Your task to perform on an android device: toggle sleep mode Image 0: 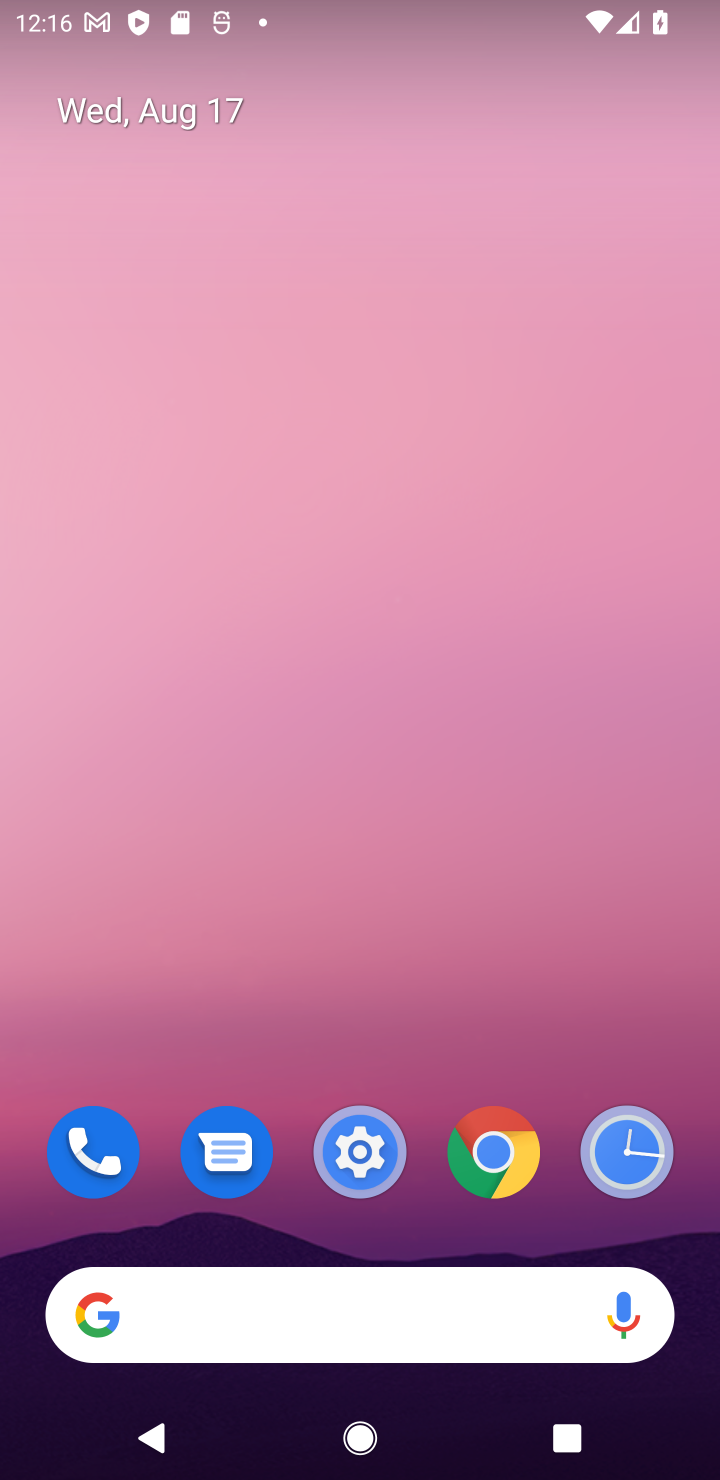
Step 0: drag from (469, 946) to (83, 425)
Your task to perform on an android device: toggle sleep mode Image 1: 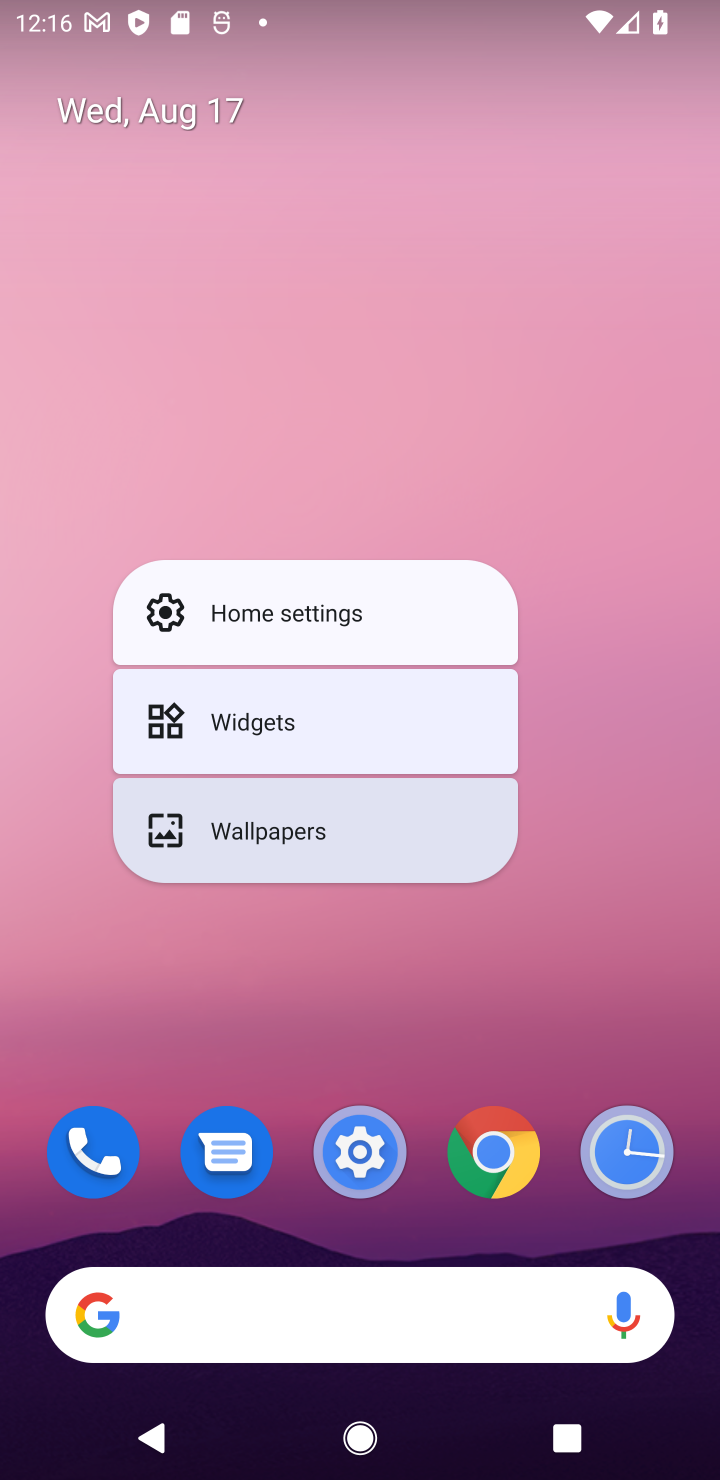
Step 1: click (648, 872)
Your task to perform on an android device: toggle sleep mode Image 2: 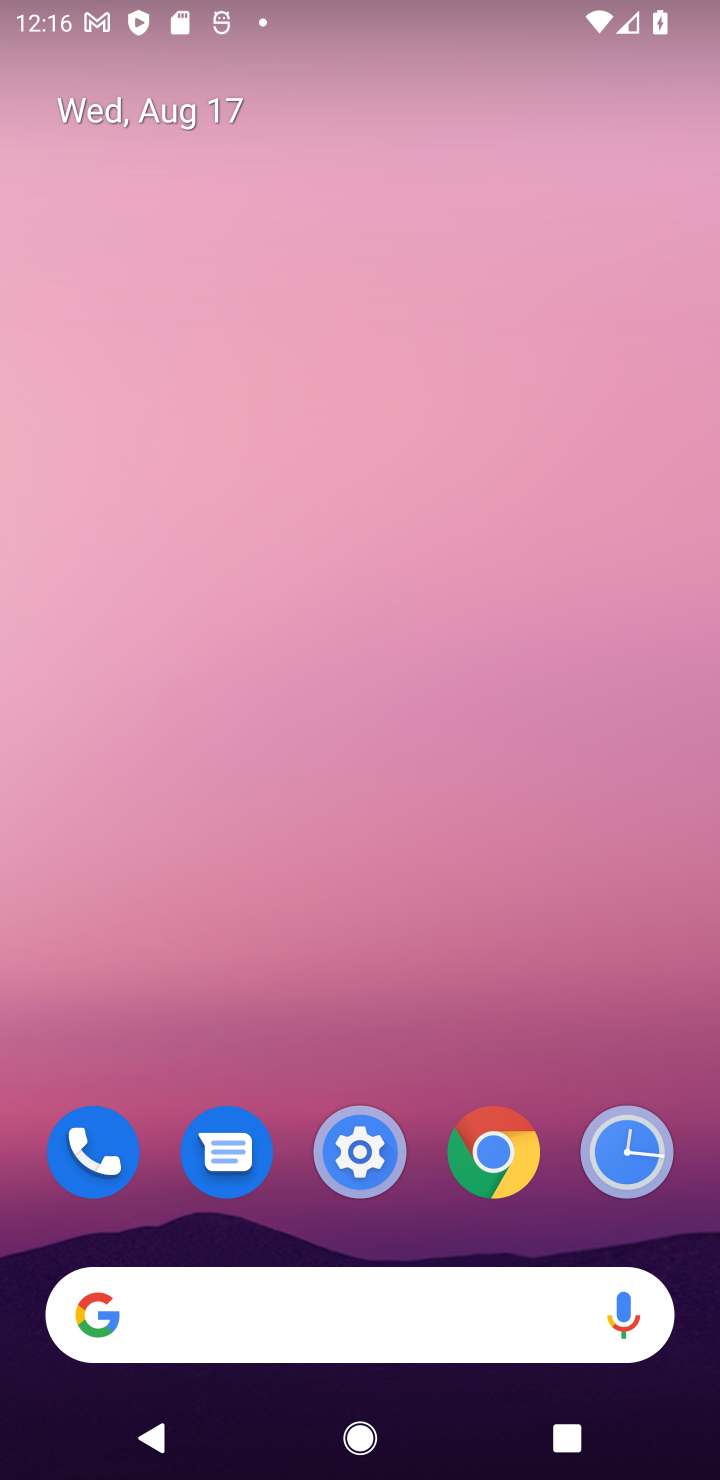
Step 2: drag from (542, 1248) to (276, 123)
Your task to perform on an android device: toggle sleep mode Image 3: 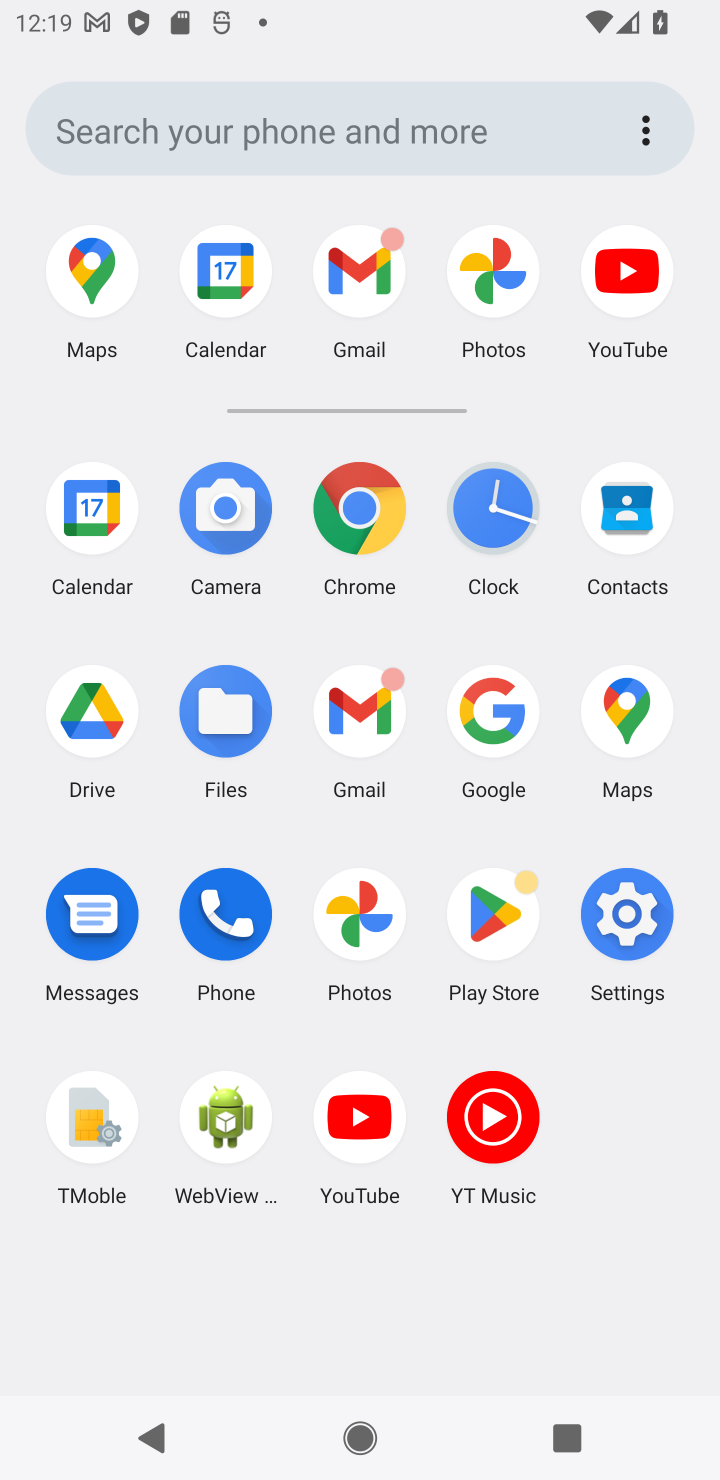
Step 3: click (636, 899)
Your task to perform on an android device: toggle sleep mode Image 4: 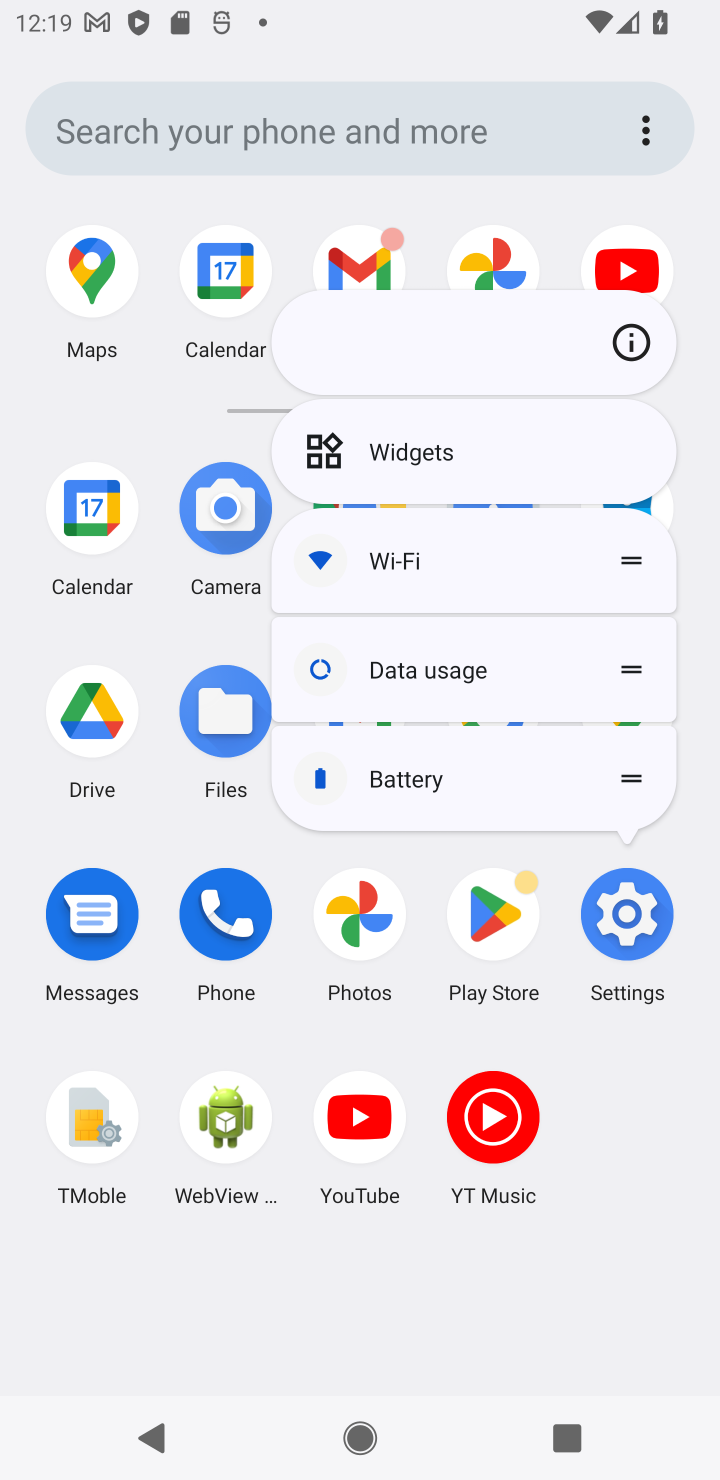
Step 4: click (624, 919)
Your task to perform on an android device: toggle sleep mode Image 5: 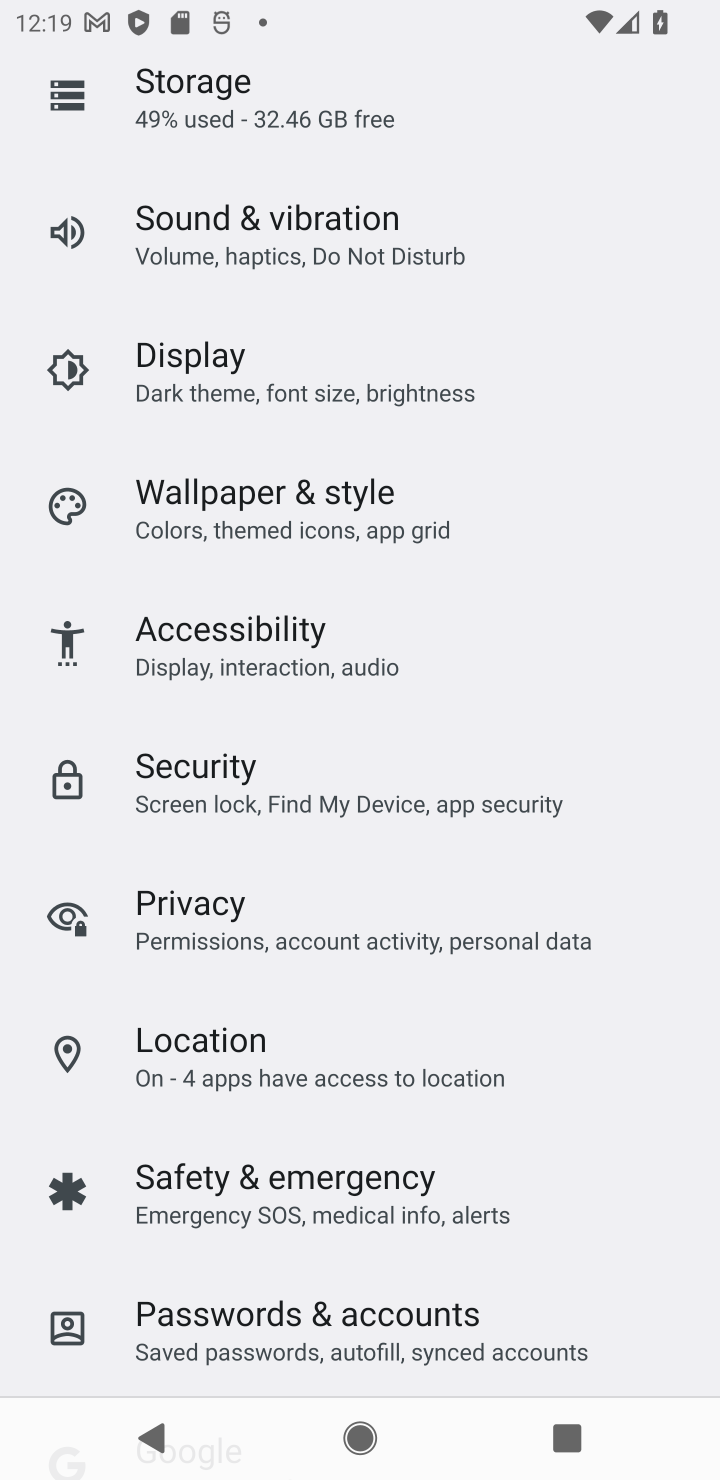
Step 5: task complete